Your task to perform on an android device: Add asus rog to the cart on costco.com, then select checkout. Image 0: 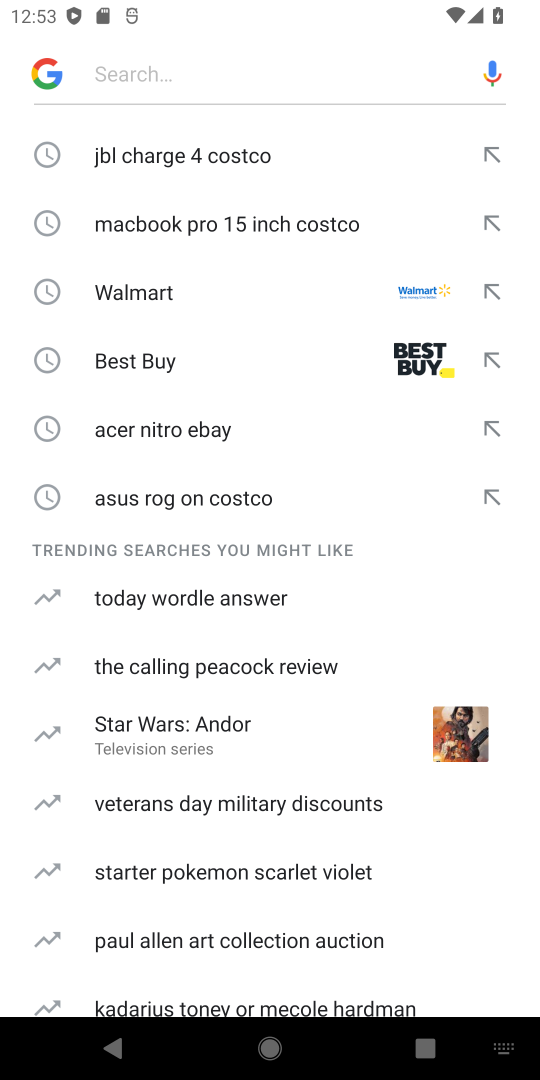
Step 0: type "asus rog to the cart on costco"
Your task to perform on an android device: Add asus rog to the cart on costco.com, then select checkout. Image 1: 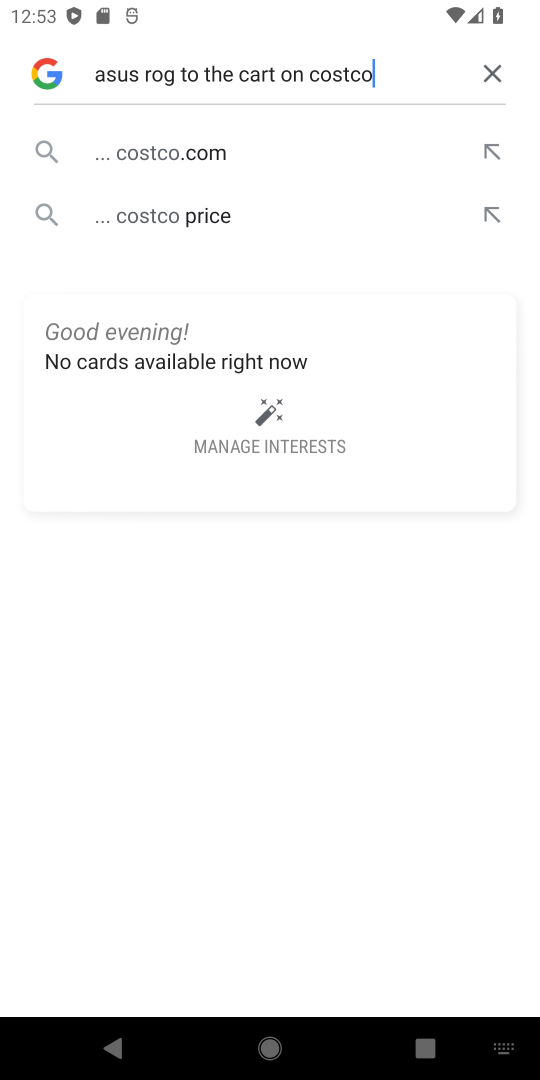
Step 1: click (159, 149)
Your task to perform on an android device: Add asus rog to the cart on costco.com, then select checkout. Image 2: 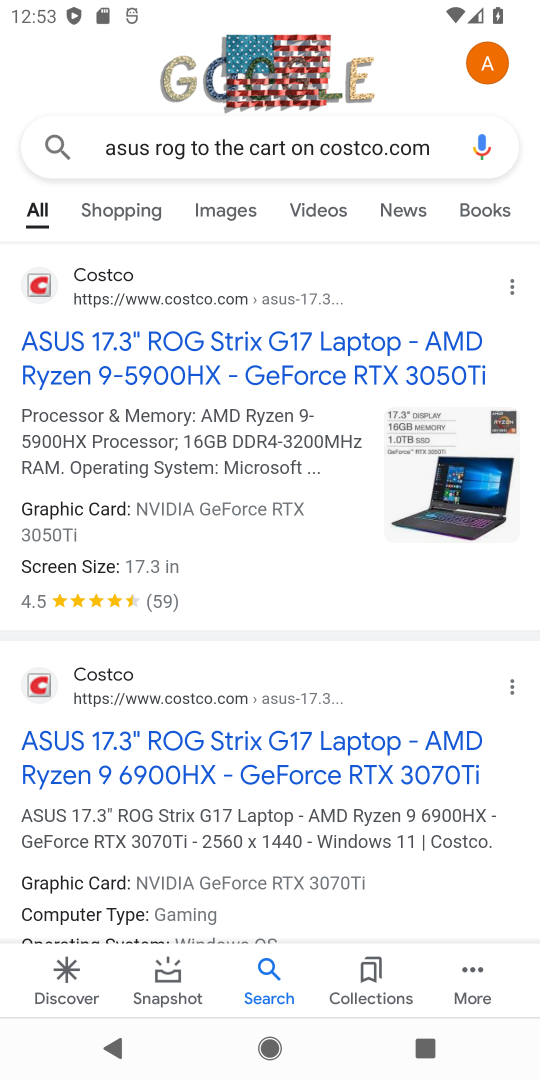
Step 2: click (202, 345)
Your task to perform on an android device: Add asus rog to the cart on costco.com, then select checkout. Image 3: 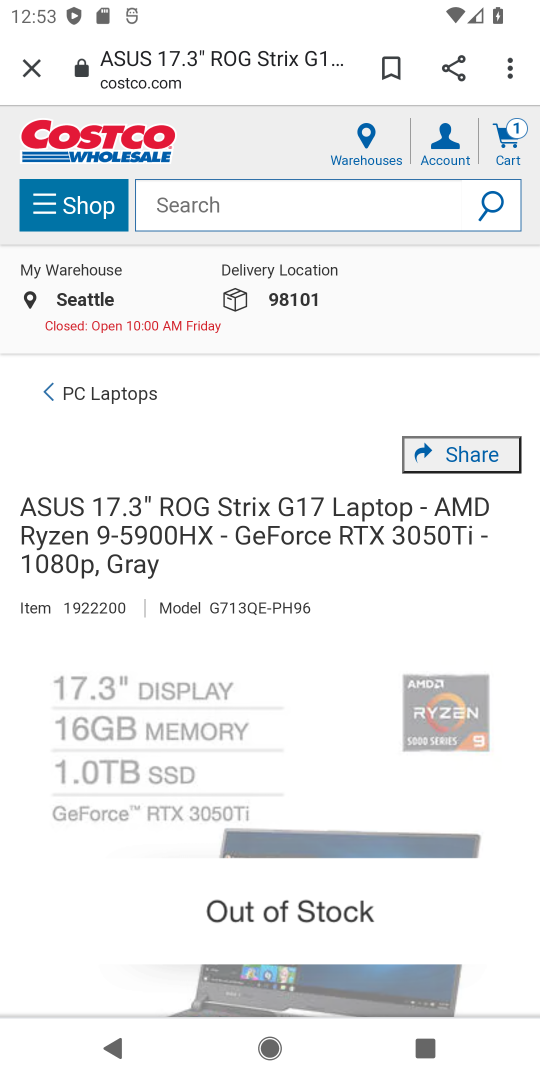
Step 3: drag from (265, 672) to (375, 273)
Your task to perform on an android device: Add asus rog to the cart on costco.com, then select checkout. Image 4: 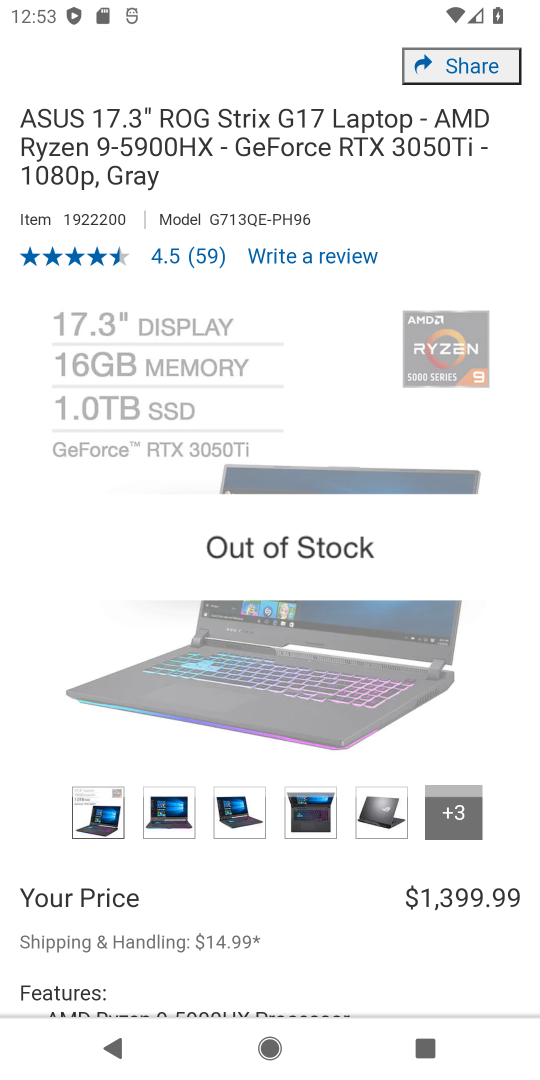
Step 4: press back button
Your task to perform on an android device: Add asus rog to the cart on costco.com, then select checkout. Image 5: 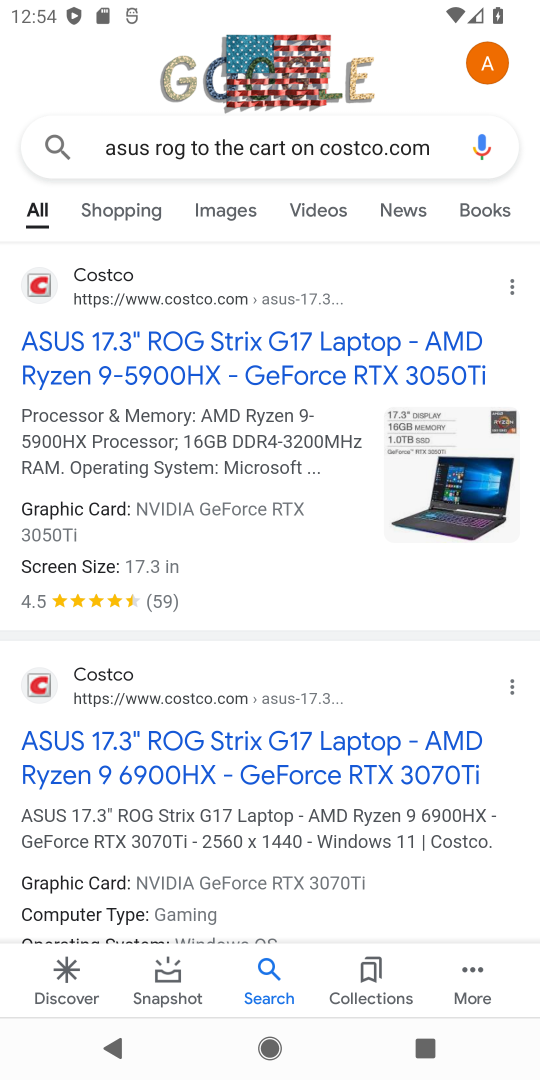
Step 5: click (207, 775)
Your task to perform on an android device: Add asus rog to the cart on costco.com, then select checkout. Image 6: 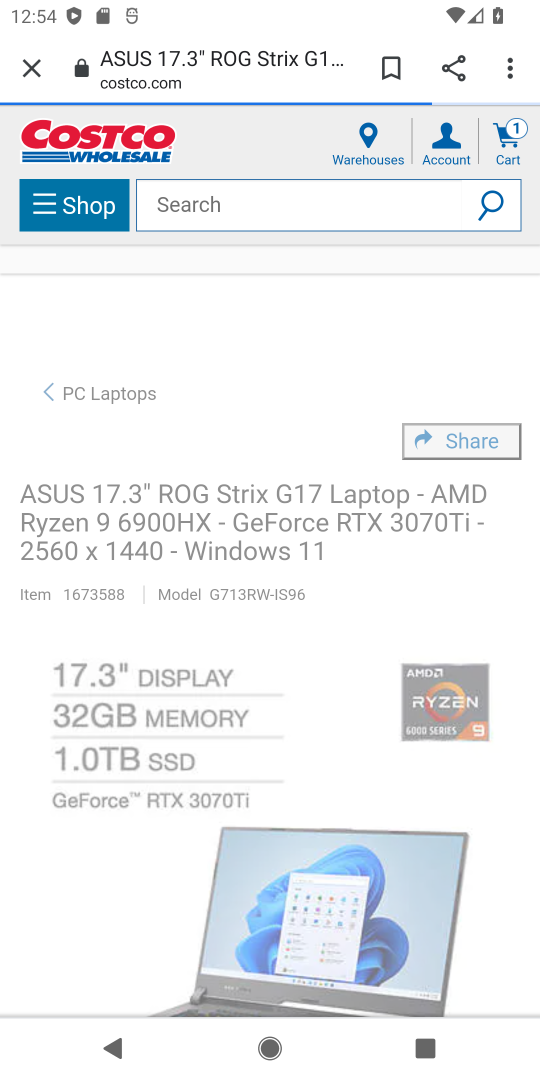
Step 6: drag from (171, 872) to (287, 420)
Your task to perform on an android device: Add asus rog to the cart on costco.com, then select checkout. Image 7: 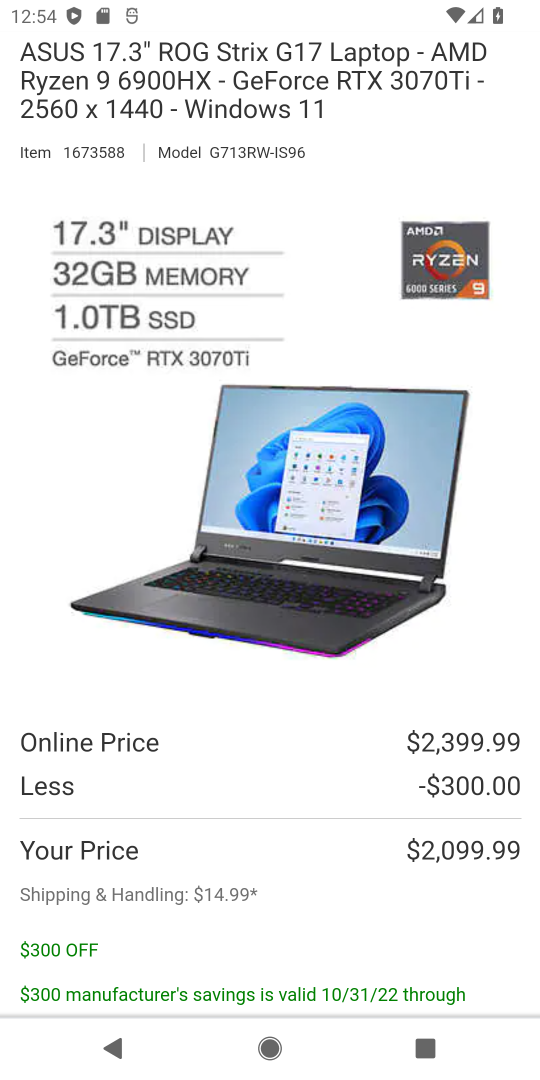
Step 7: drag from (258, 839) to (410, 258)
Your task to perform on an android device: Add asus rog to the cart on costco.com, then select checkout. Image 8: 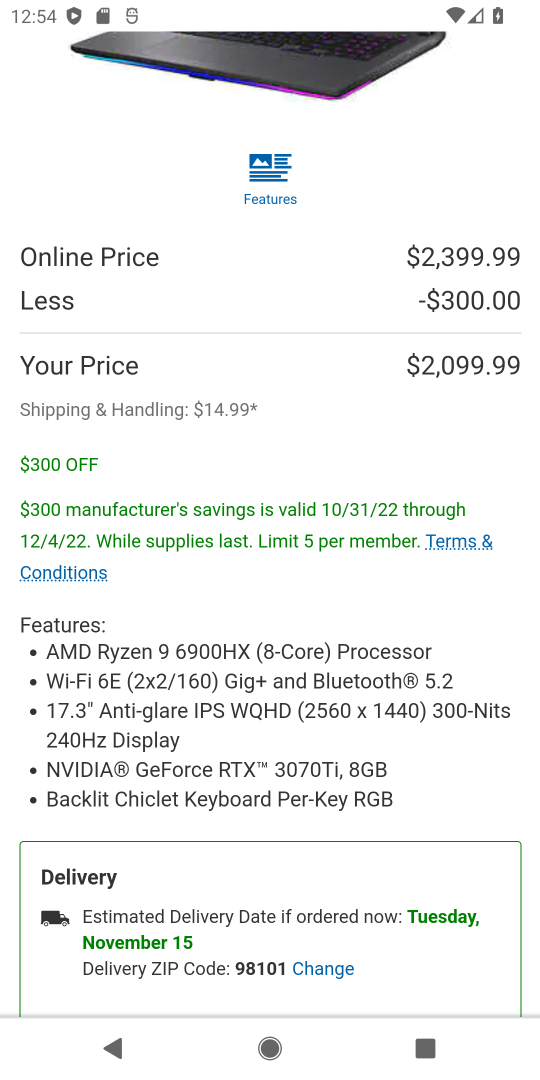
Step 8: drag from (290, 697) to (450, 13)
Your task to perform on an android device: Add asus rog to the cart on costco.com, then select checkout. Image 9: 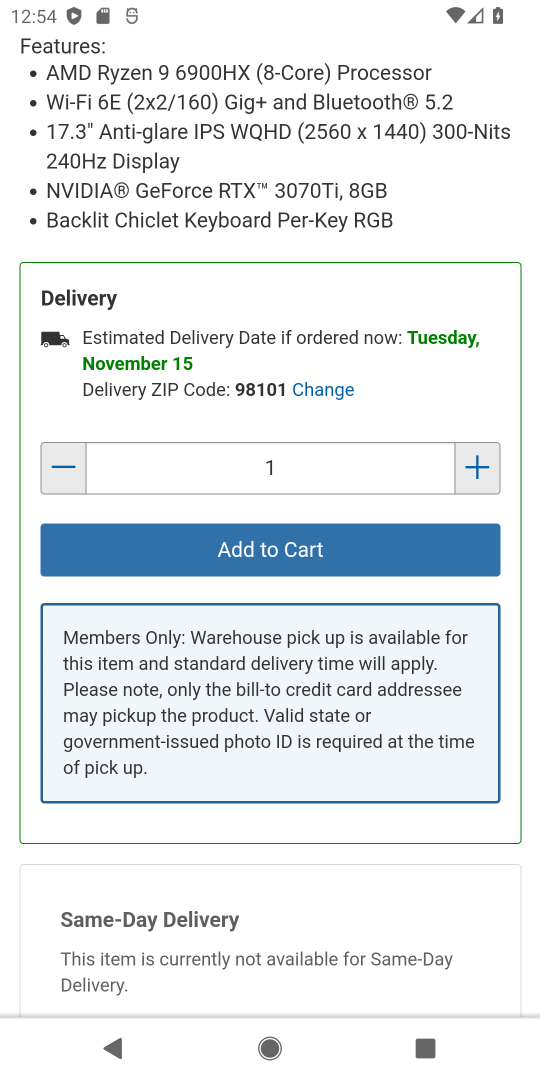
Step 9: click (305, 553)
Your task to perform on an android device: Add asus rog to the cart on costco.com, then select checkout. Image 10: 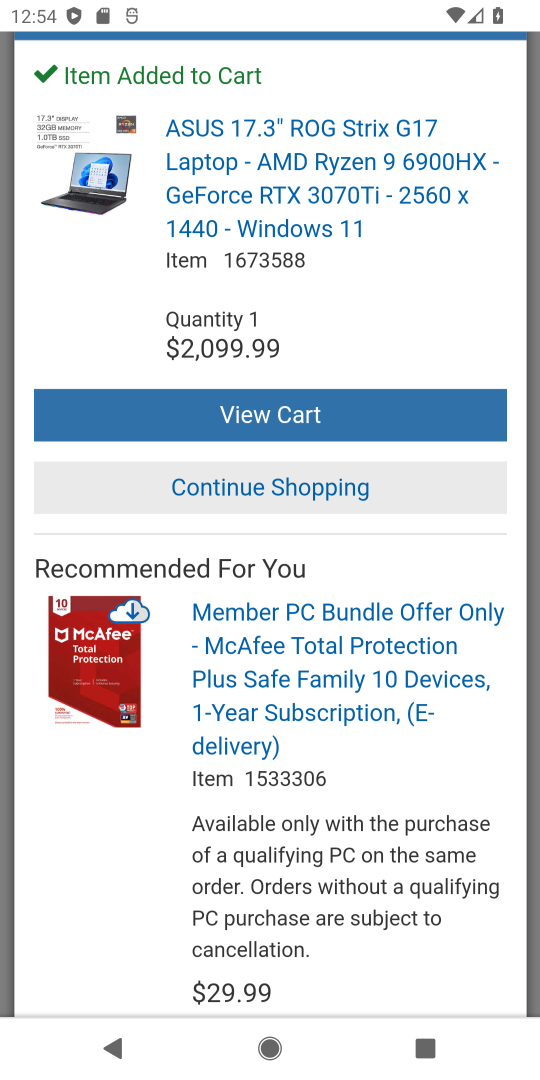
Step 10: task complete